Your task to perform on an android device: empty trash in the gmail app Image 0: 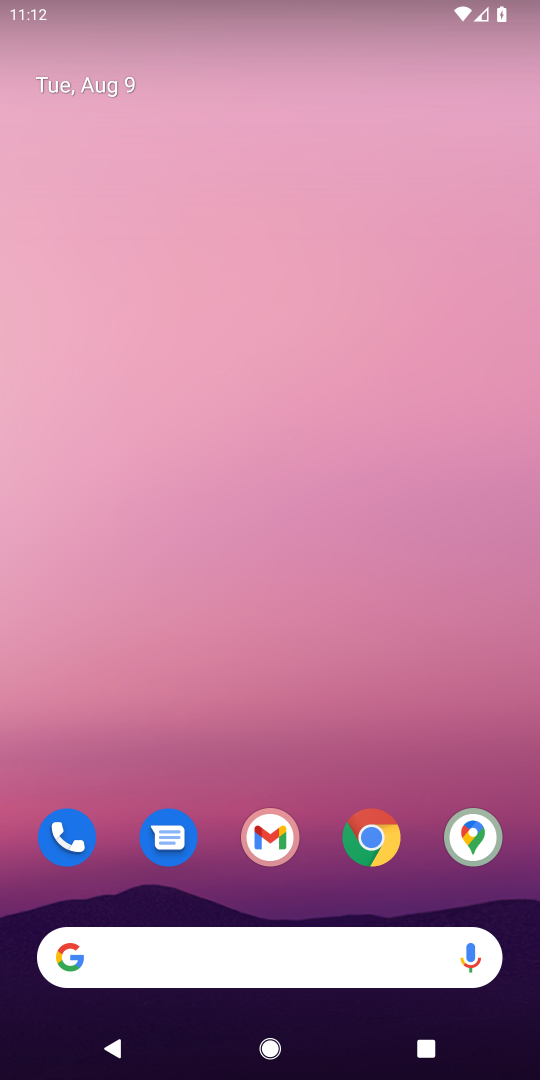
Step 0: drag from (307, 836) to (335, 189)
Your task to perform on an android device: empty trash in the gmail app Image 1: 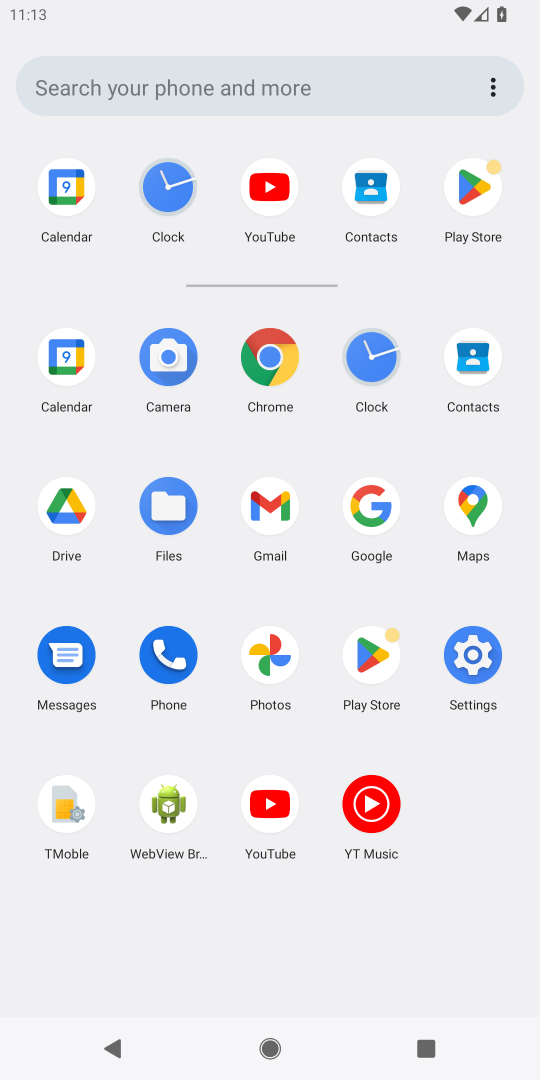
Step 1: click (266, 508)
Your task to perform on an android device: empty trash in the gmail app Image 2: 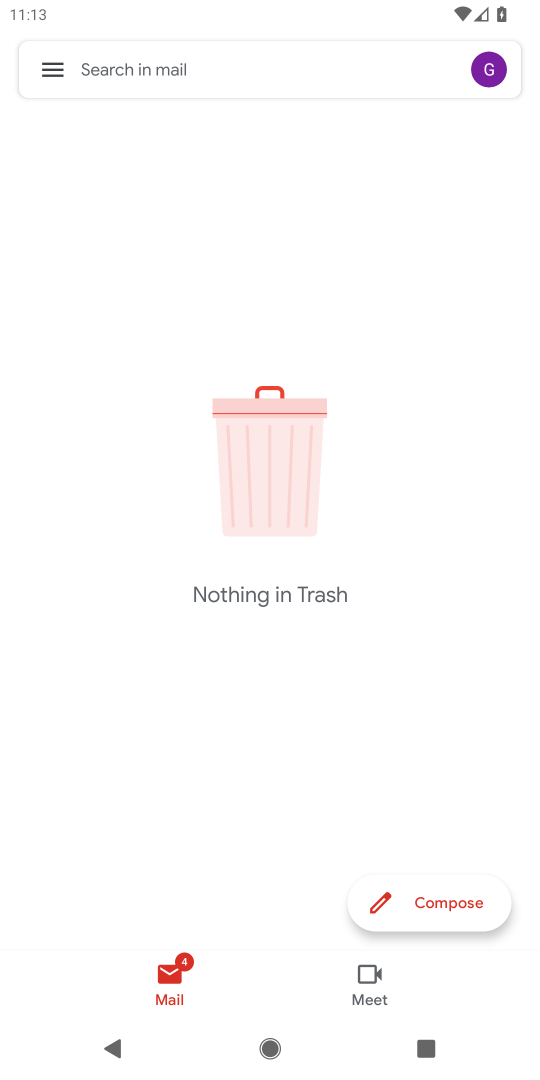
Step 2: click (45, 79)
Your task to perform on an android device: empty trash in the gmail app Image 3: 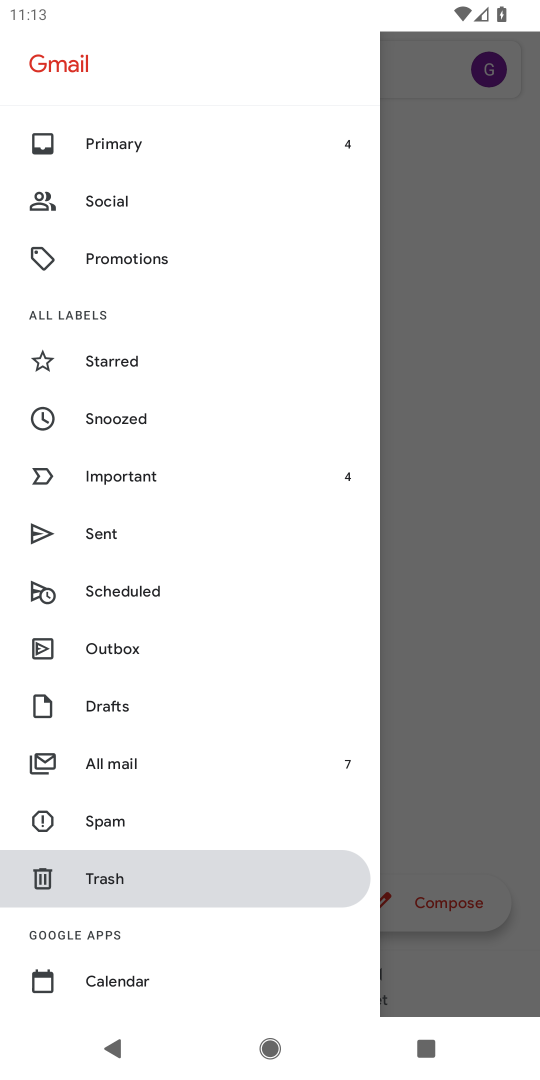
Step 3: click (106, 869)
Your task to perform on an android device: empty trash in the gmail app Image 4: 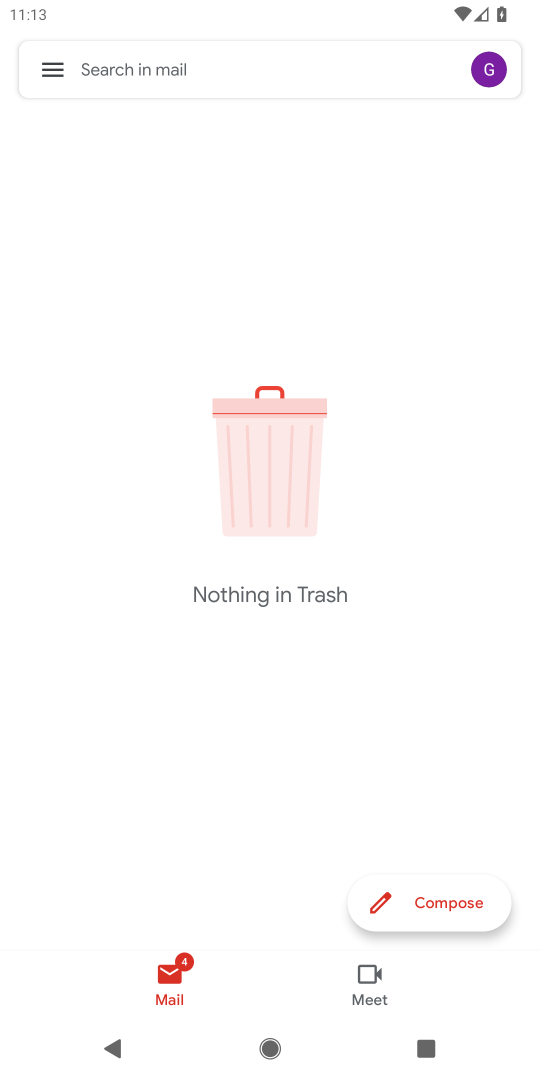
Step 4: task complete